Your task to perform on an android device: Go to ESPN.com Image 0: 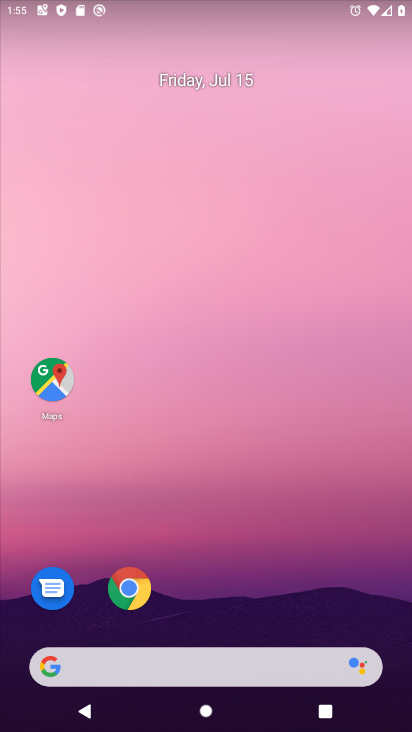
Step 0: press home button
Your task to perform on an android device: Go to ESPN.com Image 1: 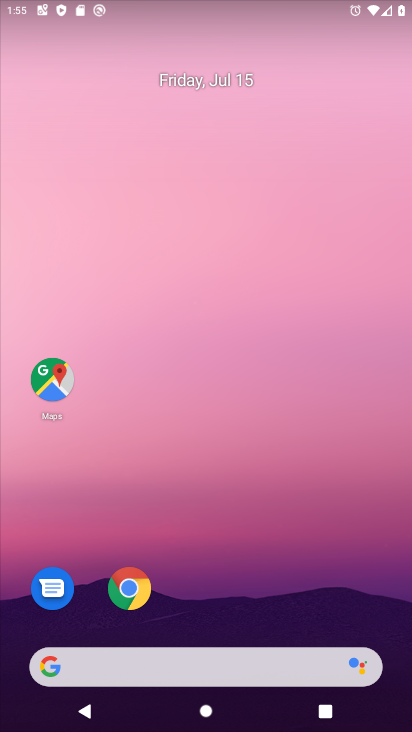
Step 1: click (130, 588)
Your task to perform on an android device: Go to ESPN.com Image 2: 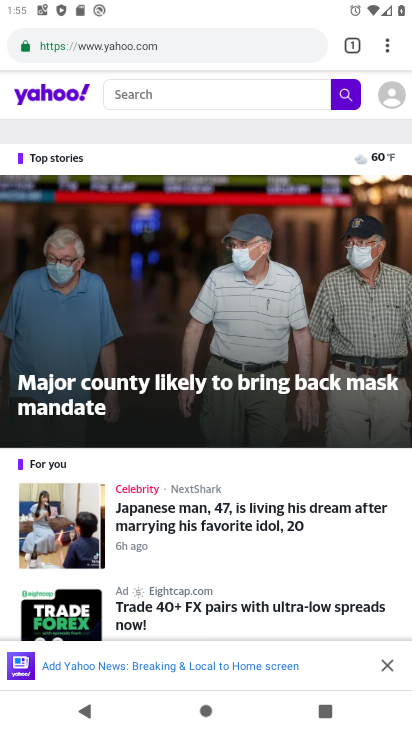
Step 2: click (218, 44)
Your task to perform on an android device: Go to ESPN.com Image 3: 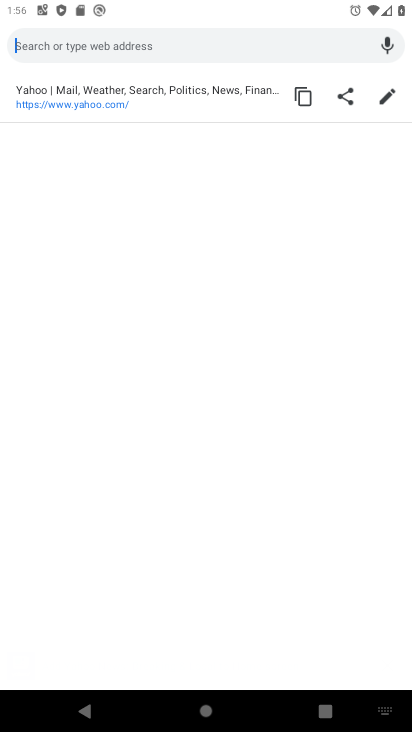
Step 3: type "ESPN.com"
Your task to perform on an android device: Go to ESPN.com Image 4: 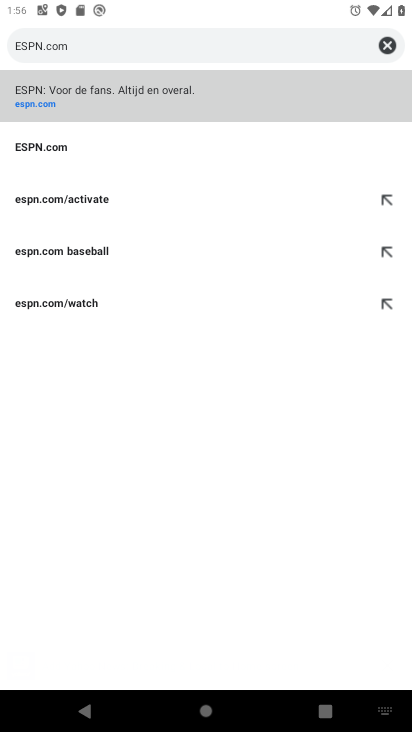
Step 4: click (50, 146)
Your task to perform on an android device: Go to ESPN.com Image 5: 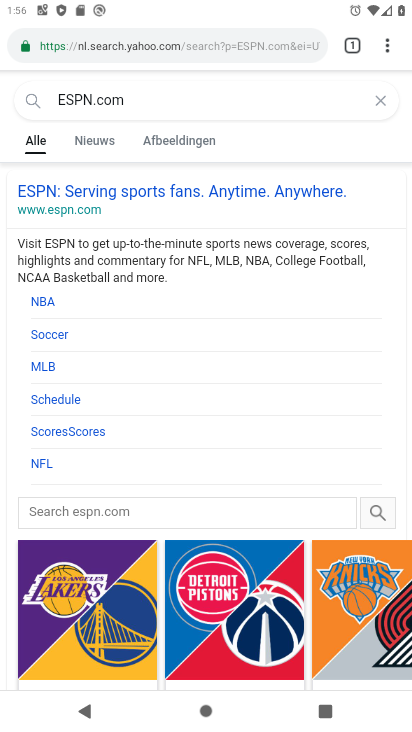
Step 5: click (38, 199)
Your task to perform on an android device: Go to ESPN.com Image 6: 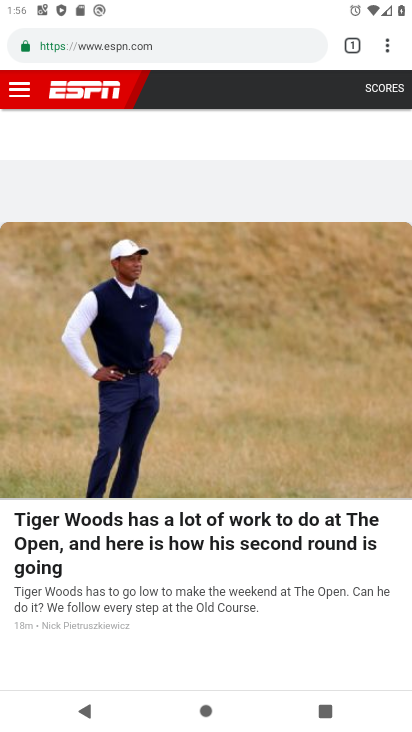
Step 6: task complete